Your task to perform on an android device: change notifications settings Image 0: 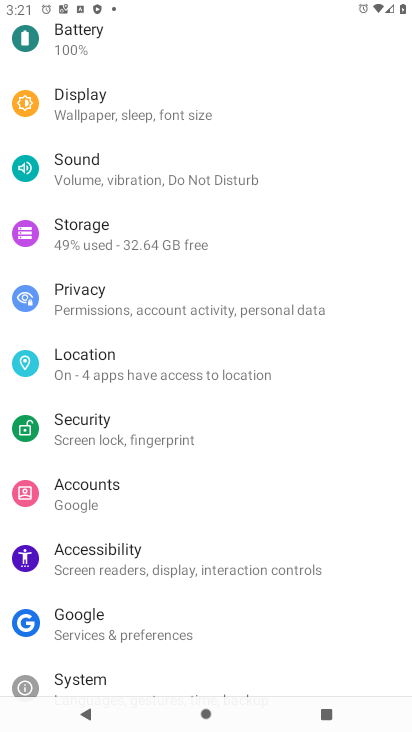
Step 0: drag from (344, 169) to (320, 458)
Your task to perform on an android device: change notifications settings Image 1: 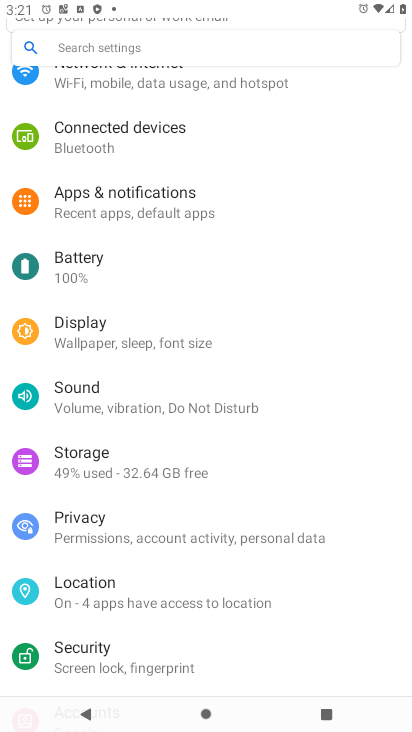
Step 1: click (122, 205)
Your task to perform on an android device: change notifications settings Image 2: 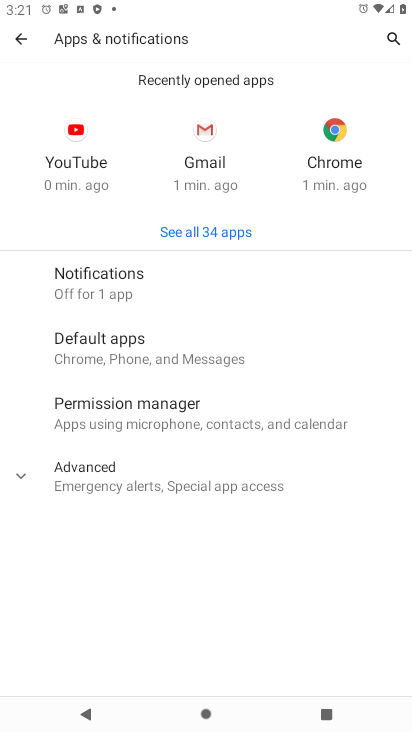
Step 2: click (112, 280)
Your task to perform on an android device: change notifications settings Image 3: 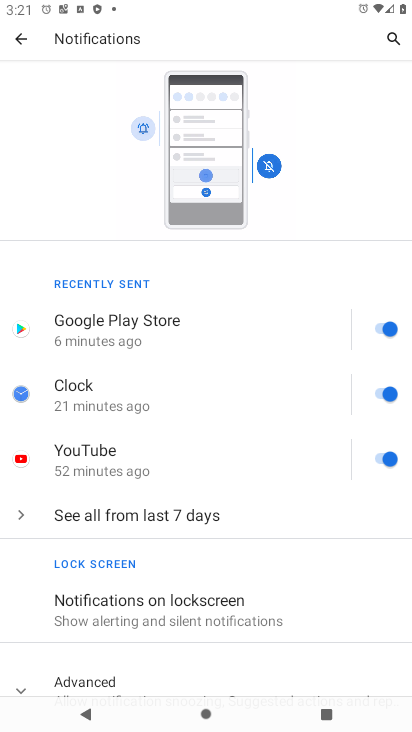
Step 3: drag from (275, 629) to (295, 323)
Your task to perform on an android device: change notifications settings Image 4: 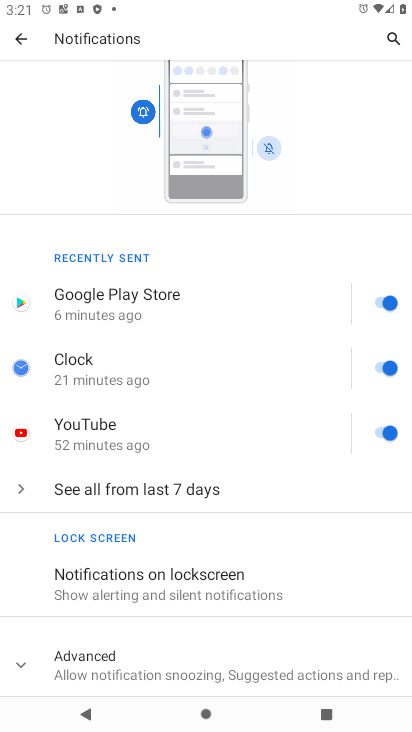
Step 4: click (22, 660)
Your task to perform on an android device: change notifications settings Image 5: 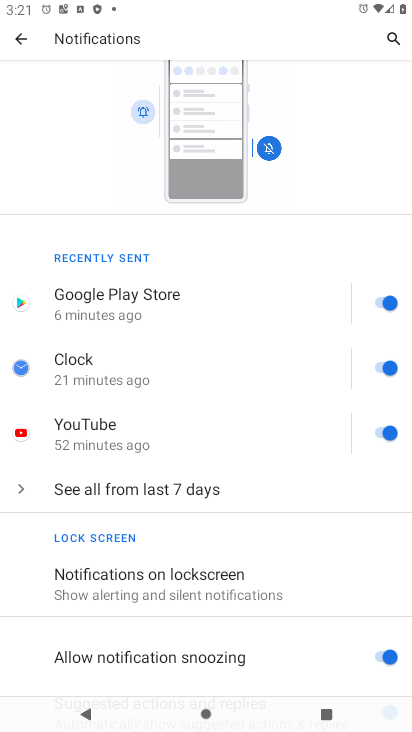
Step 5: drag from (252, 647) to (281, 211)
Your task to perform on an android device: change notifications settings Image 6: 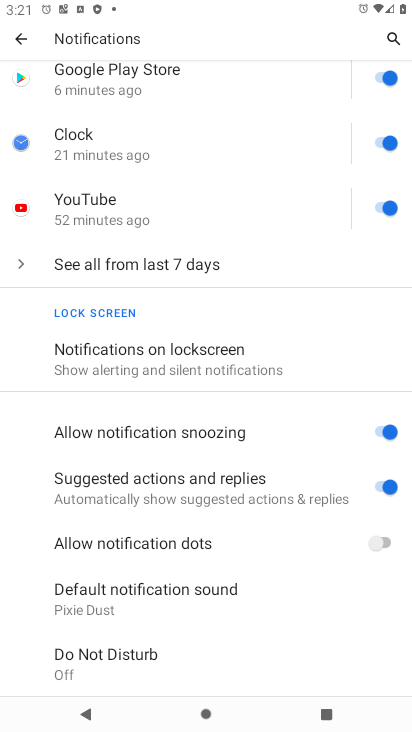
Step 6: click (378, 429)
Your task to perform on an android device: change notifications settings Image 7: 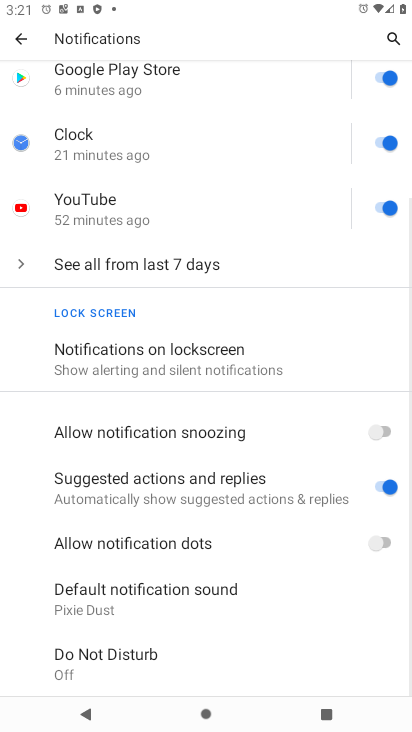
Step 7: click (387, 546)
Your task to perform on an android device: change notifications settings Image 8: 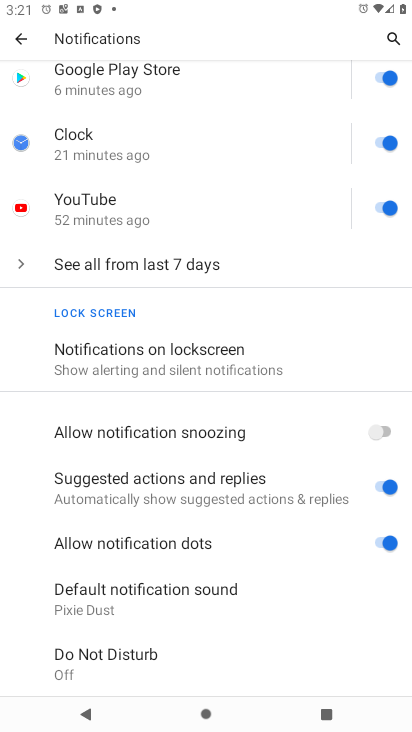
Step 8: task complete